Your task to perform on an android device: View the shopping cart on costco.com. Search for "usb-a to usb-b" on costco.com, select the first entry, add it to the cart, then select checkout. Image 0: 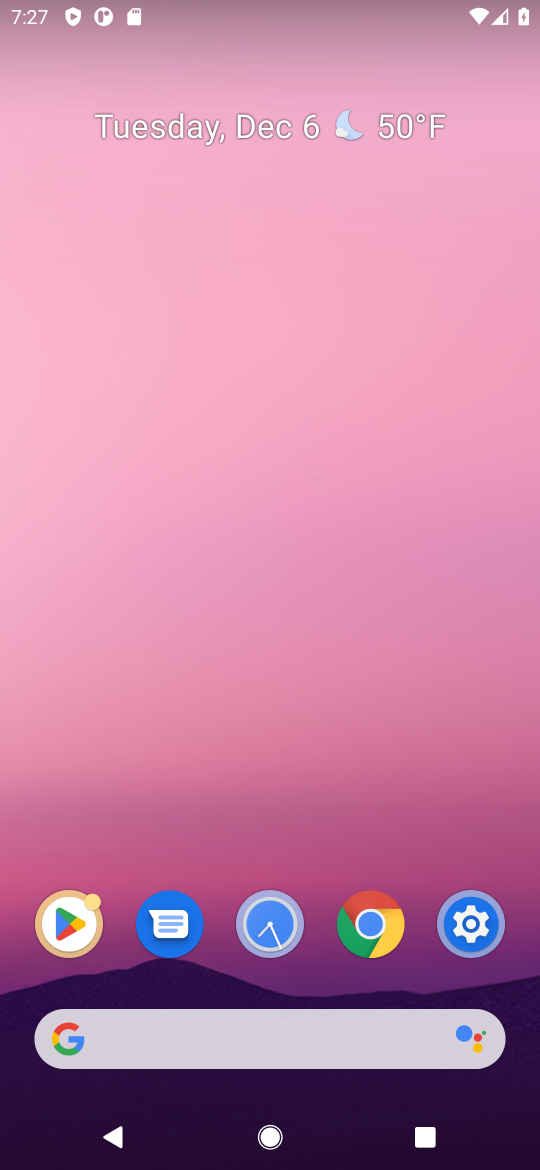
Step 0: click (211, 1059)
Your task to perform on an android device: View the shopping cart on costco.com. Search for "usb-a to usb-b" on costco.com, select the first entry, add it to the cart, then select checkout. Image 1: 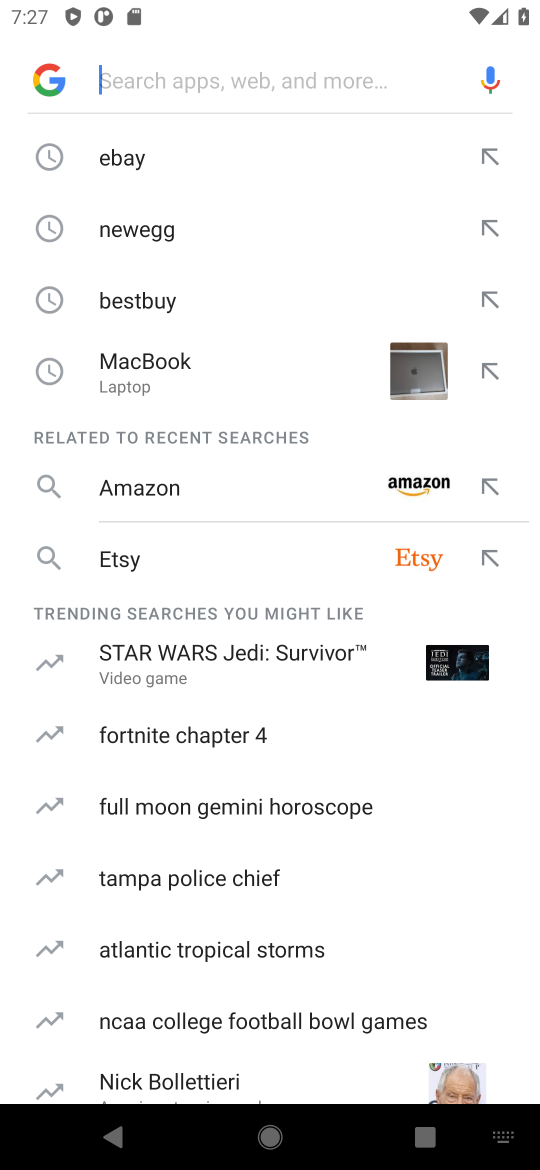
Step 1: type "costco"
Your task to perform on an android device: View the shopping cart on costco.com. Search for "usb-a to usb-b" on costco.com, select the first entry, add it to the cart, then select checkout. Image 2: 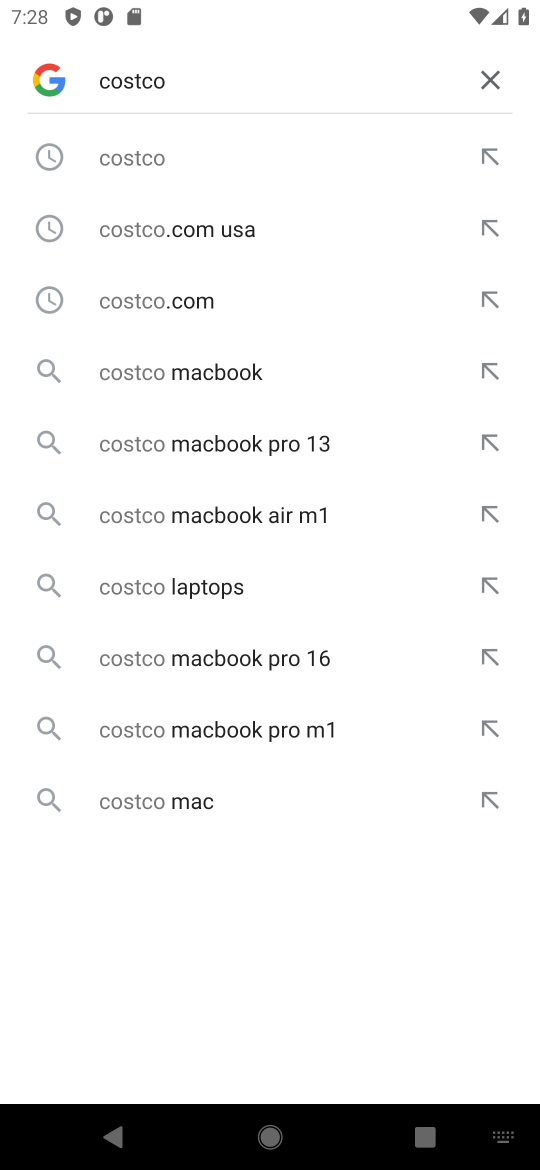
Step 2: click (103, 148)
Your task to perform on an android device: View the shopping cart on costco.com. Search for "usb-a to usb-b" on costco.com, select the first entry, add it to the cart, then select checkout. Image 3: 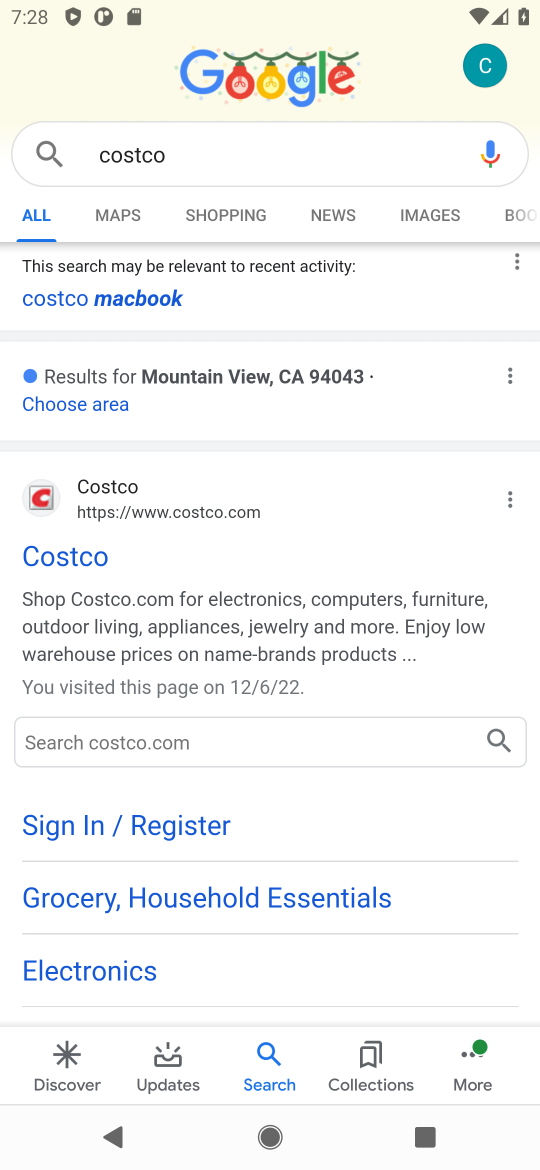
Step 3: click (64, 539)
Your task to perform on an android device: View the shopping cart on costco.com. Search for "usb-a to usb-b" on costco.com, select the first entry, add it to the cart, then select checkout. Image 4: 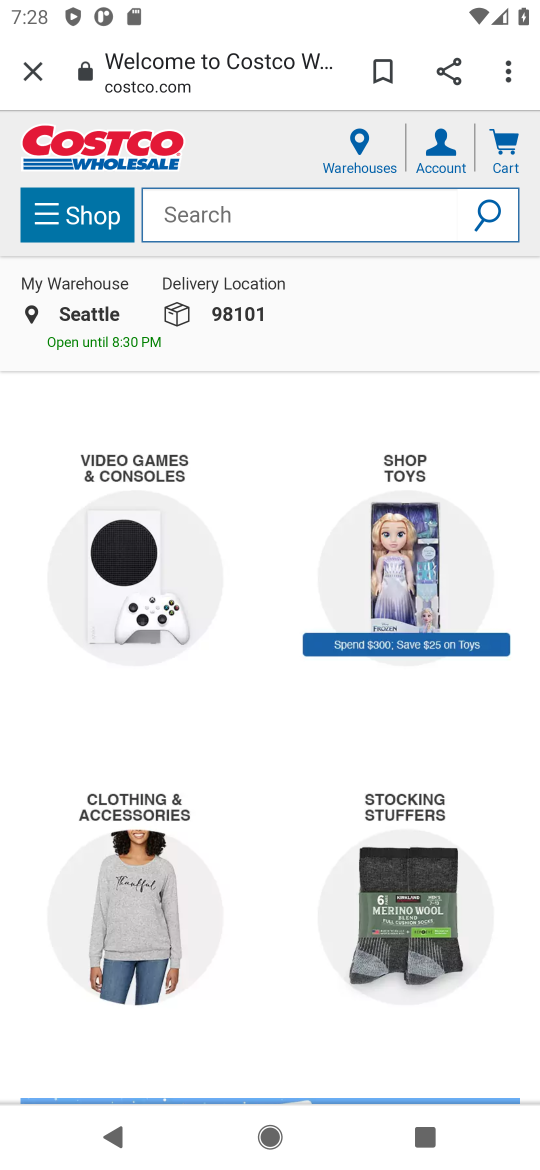
Step 4: click (255, 225)
Your task to perform on an android device: View the shopping cart on costco.com. Search for "usb-a to usb-b" on costco.com, select the first entry, add it to the cart, then select checkout. Image 5: 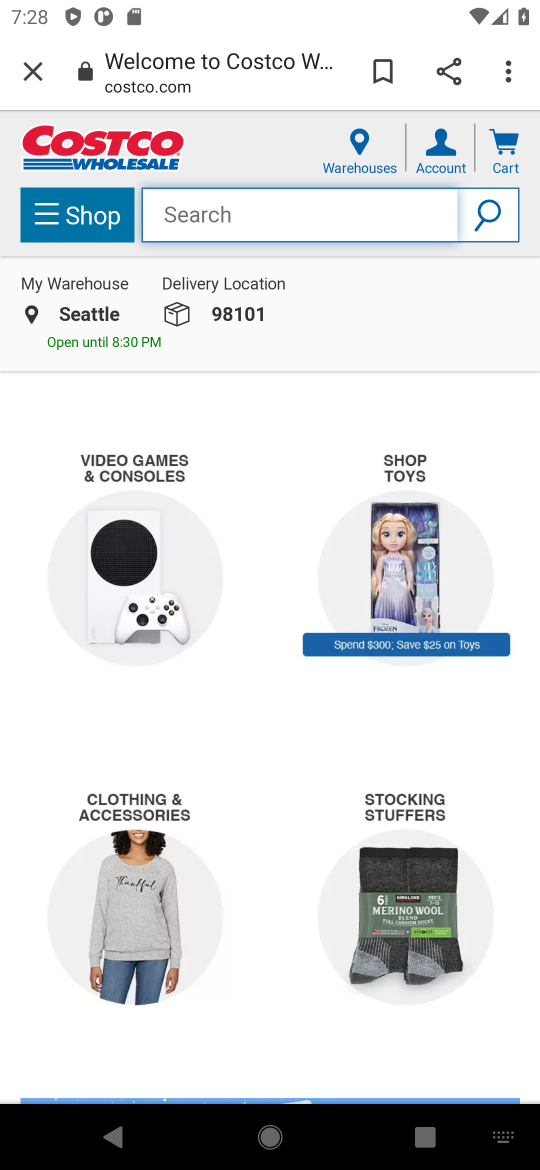
Step 5: type "usb-a to usb-b"
Your task to perform on an android device: View the shopping cart on costco.com. Search for "usb-a to usb-b" on costco.com, select the first entry, add it to the cart, then select checkout. Image 6: 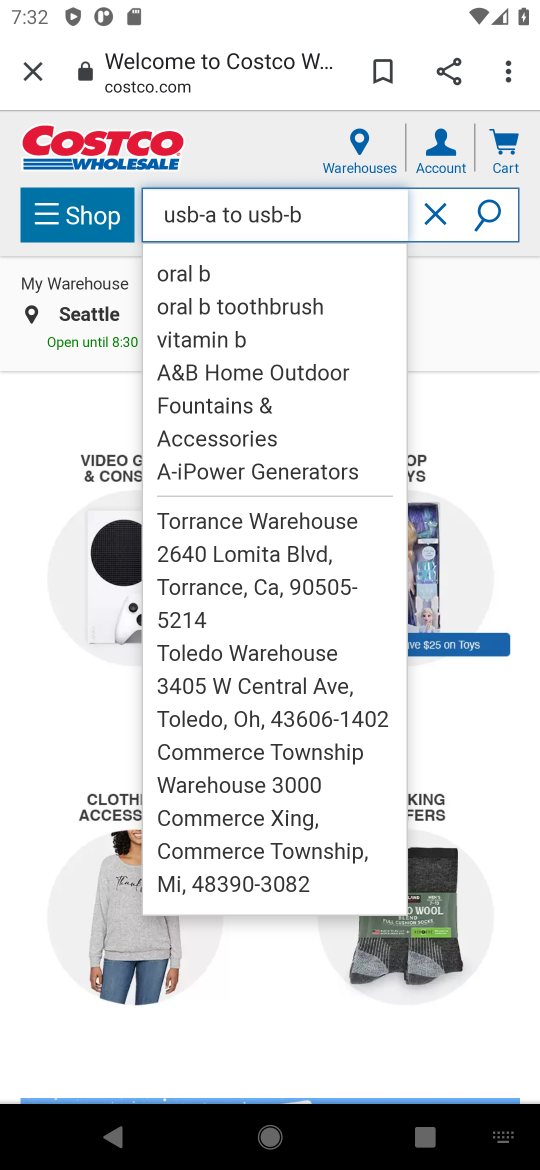
Step 6: task complete